Your task to perform on an android device: toggle location history Image 0: 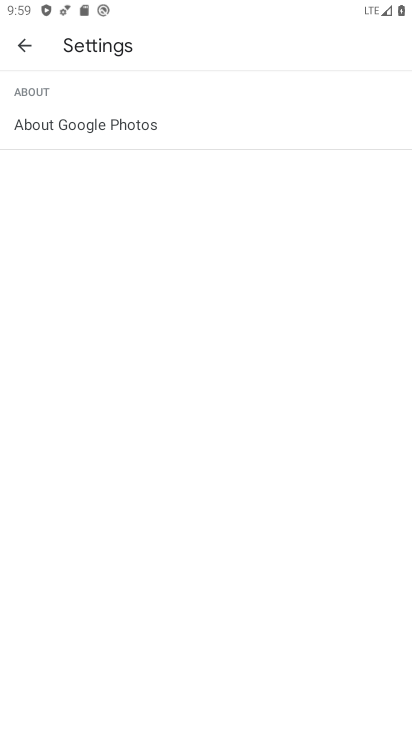
Step 0: press home button
Your task to perform on an android device: toggle location history Image 1: 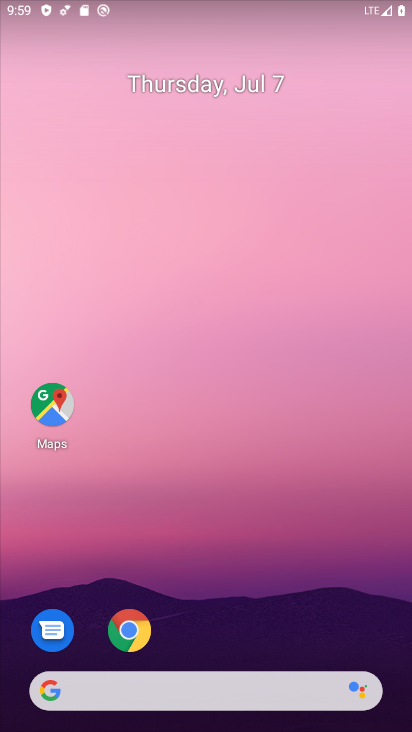
Step 1: drag from (254, 638) to (272, 18)
Your task to perform on an android device: toggle location history Image 2: 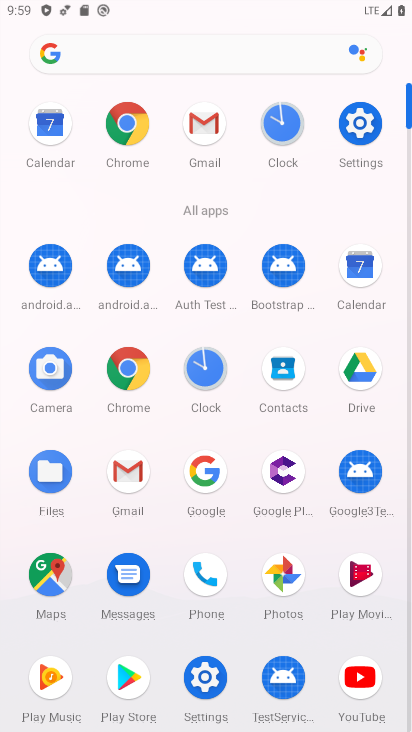
Step 2: click (345, 126)
Your task to perform on an android device: toggle location history Image 3: 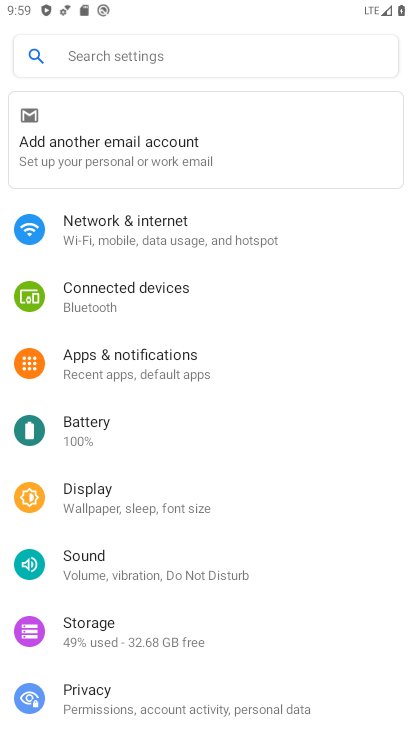
Step 3: drag from (140, 699) to (193, 109)
Your task to perform on an android device: toggle location history Image 4: 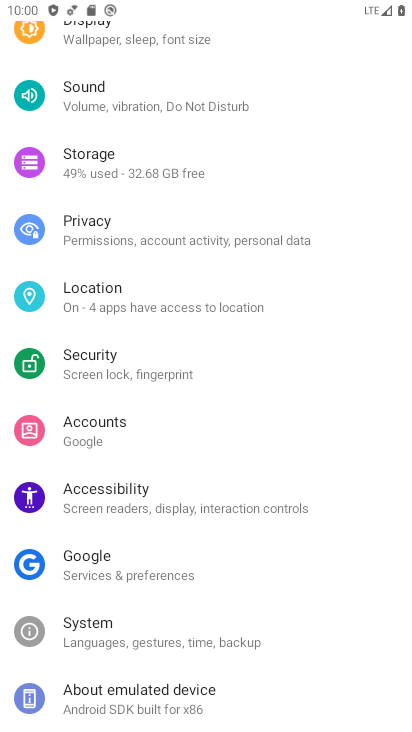
Step 4: click (140, 289)
Your task to perform on an android device: toggle location history Image 5: 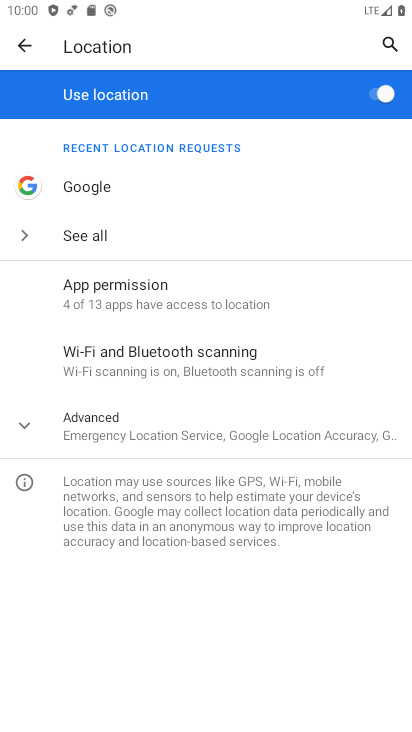
Step 5: click (61, 422)
Your task to perform on an android device: toggle location history Image 6: 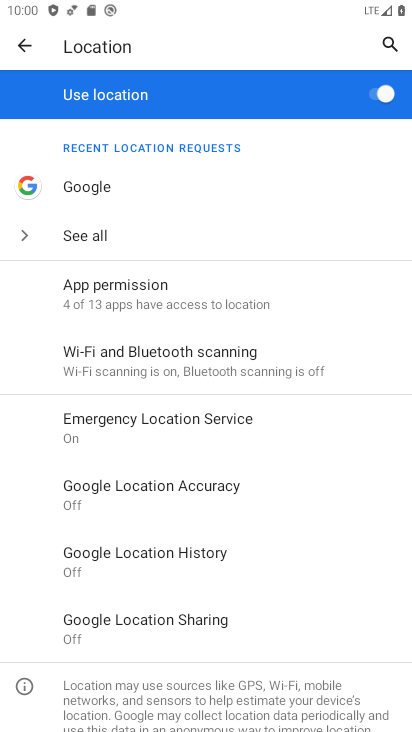
Step 6: click (147, 556)
Your task to perform on an android device: toggle location history Image 7: 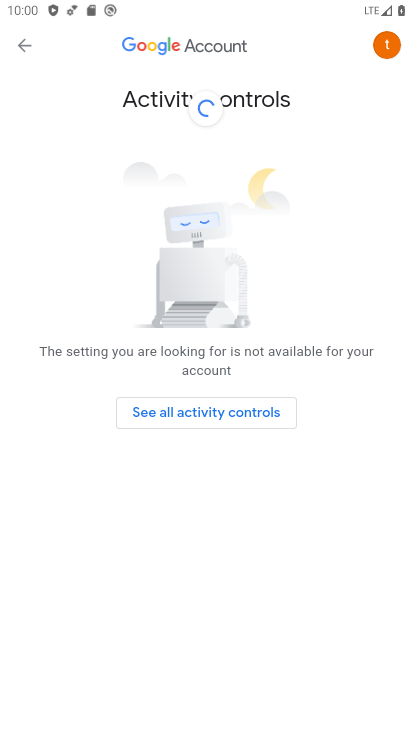
Step 7: click (223, 417)
Your task to perform on an android device: toggle location history Image 8: 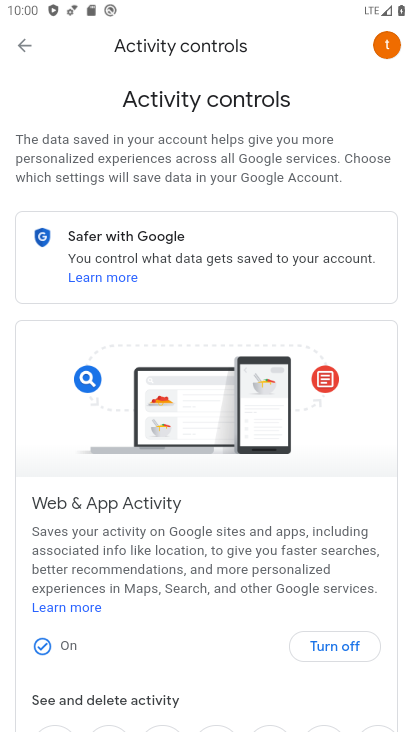
Step 8: click (340, 650)
Your task to perform on an android device: toggle location history Image 9: 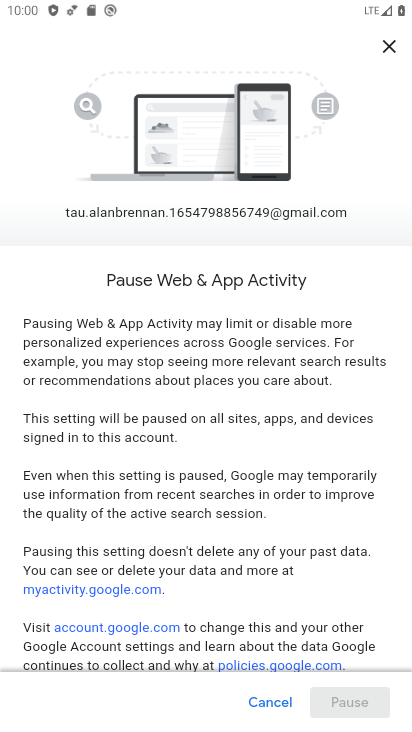
Step 9: drag from (302, 626) to (294, 253)
Your task to perform on an android device: toggle location history Image 10: 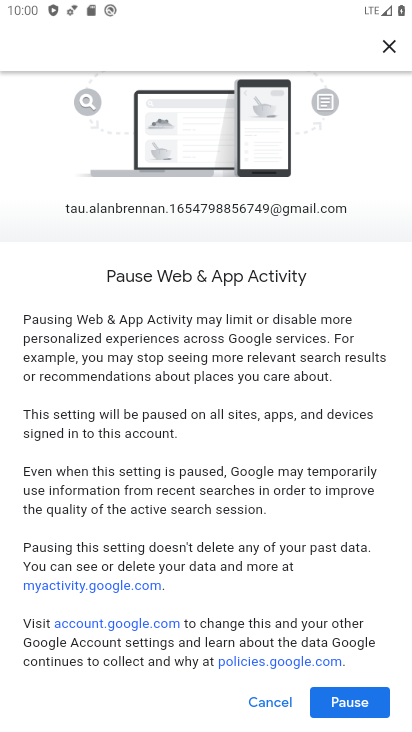
Step 10: click (338, 699)
Your task to perform on an android device: toggle location history Image 11: 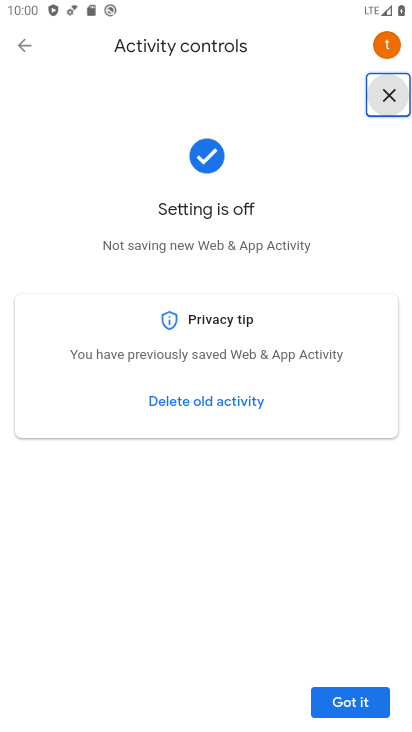
Step 11: click (347, 702)
Your task to perform on an android device: toggle location history Image 12: 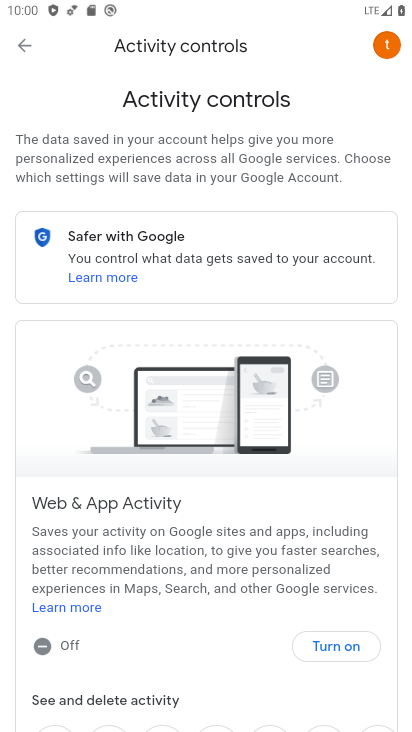
Step 12: task complete